Your task to perform on an android device: Open the calendar app, open the side menu, and click the "Day" option Image 0: 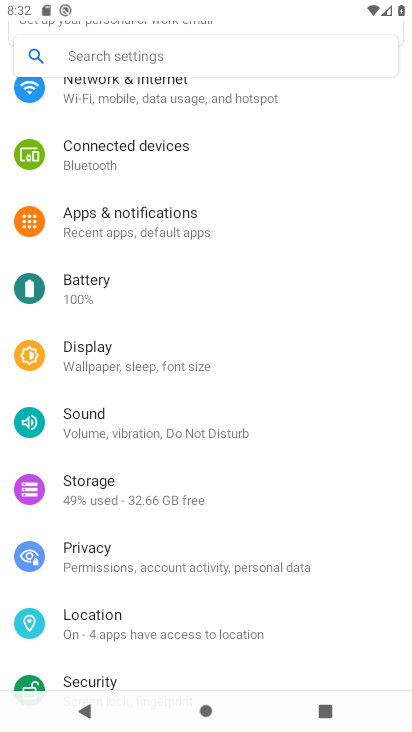
Step 0: press home button
Your task to perform on an android device: Open the calendar app, open the side menu, and click the "Day" option Image 1: 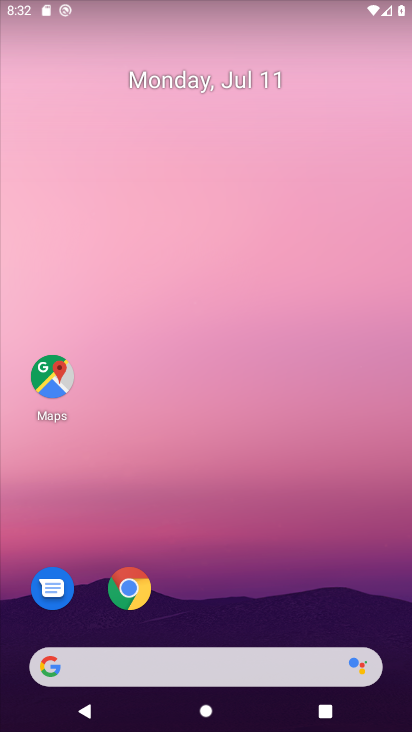
Step 1: drag from (284, 554) to (284, 20)
Your task to perform on an android device: Open the calendar app, open the side menu, and click the "Day" option Image 2: 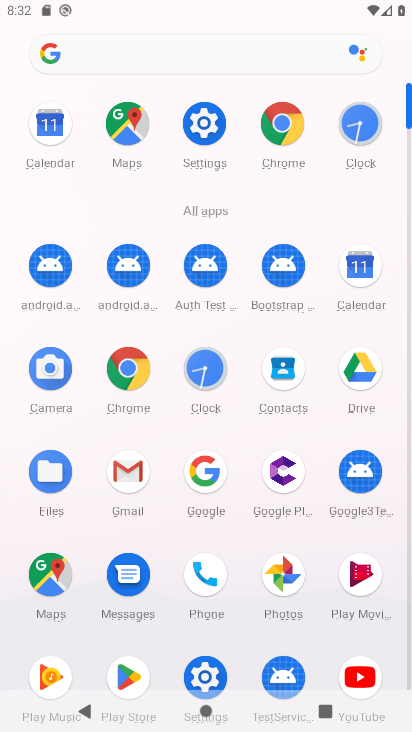
Step 2: click (40, 130)
Your task to perform on an android device: Open the calendar app, open the side menu, and click the "Day" option Image 3: 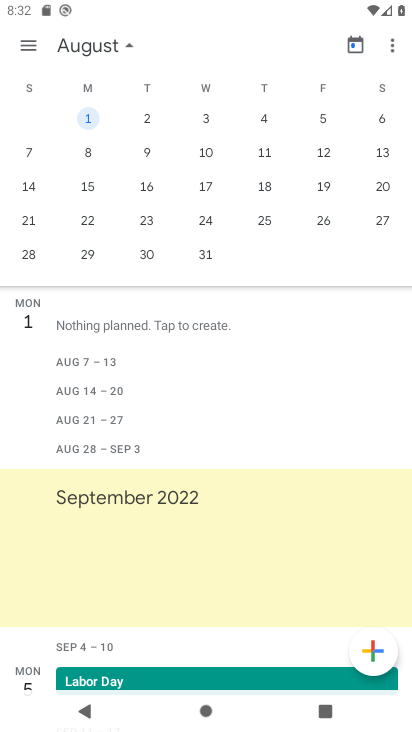
Step 3: click (24, 41)
Your task to perform on an android device: Open the calendar app, open the side menu, and click the "Day" option Image 4: 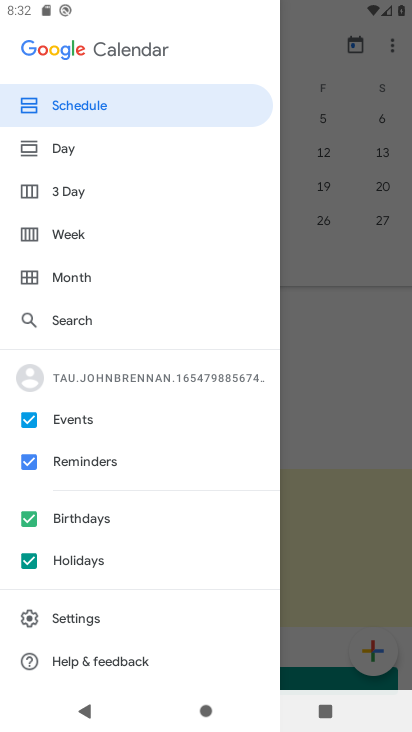
Step 4: click (68, 143)
Your task to perform on an android device: Open the calendar app, open the side menu, and click the "Day" option Image 5: 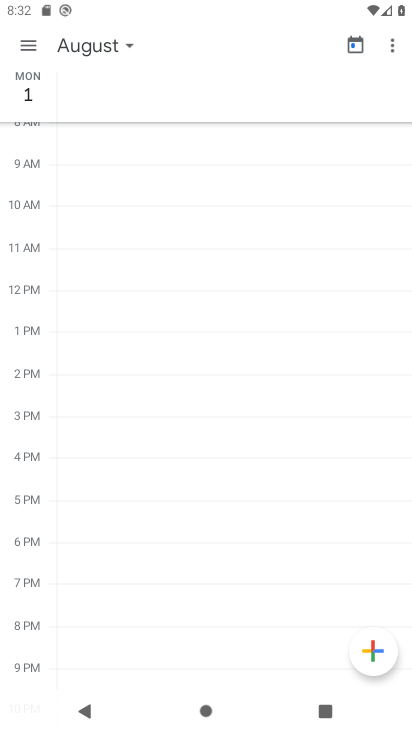
Step 5: task complete